Your task to perform on an android device: Go to Yahoo.com Image 0: 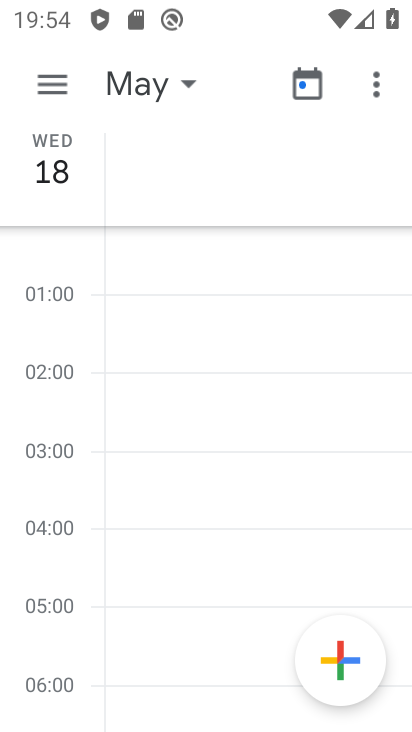
Step 0: press home button
Your task to perform on an android device: Go to Yahoo.com Image 1: 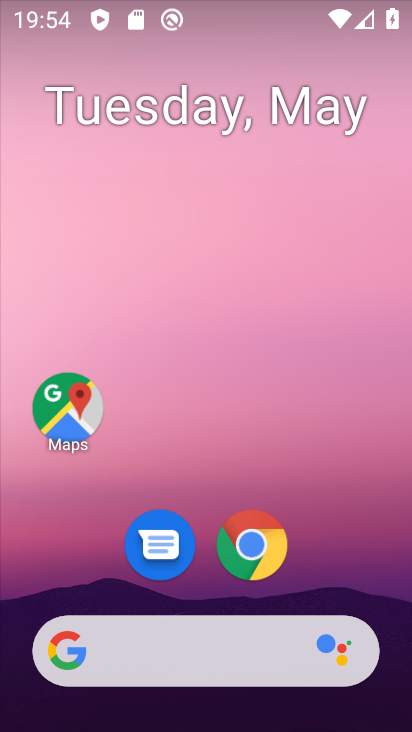
Step 1: click (277, 558)
Your task to perform on an android device: Go to Yahoo.com Image 2: 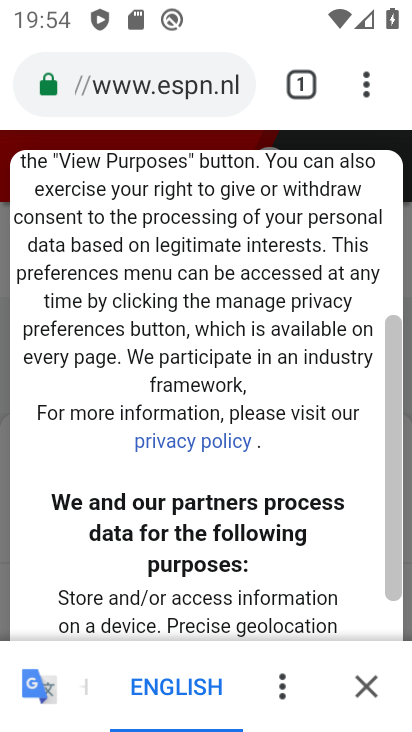
Step 2: click (294, 82)
Your task to perform on an android device: Go to Yahoo.com Image 3: 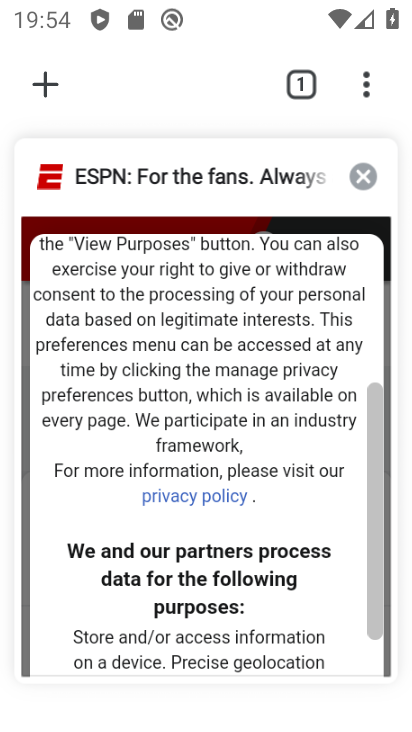
Step 3: click (371, 182)
Your task to perform on an android device: Go to Yahoo.com Image 4: 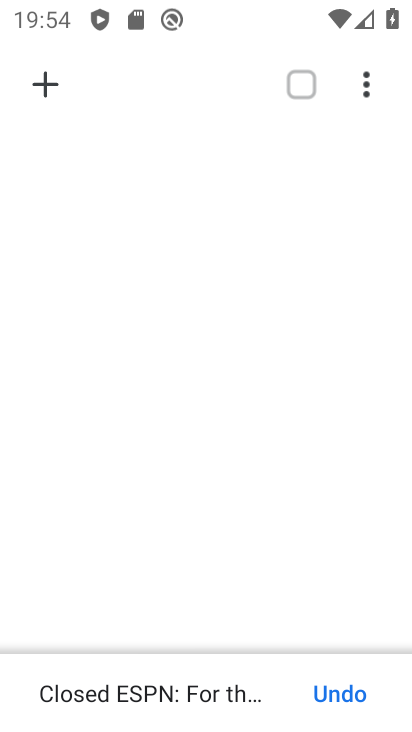
Step 4: click (37, 88)
Your task to perform on an android device: Go to Yahoo.com Image 5: 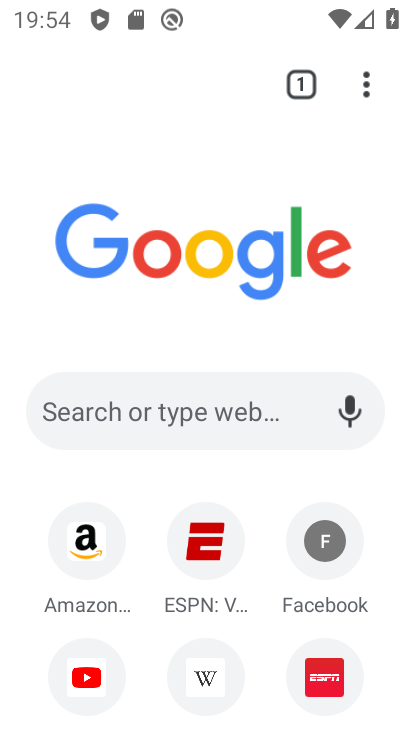
Step 5: click (185, 396)
Your task to perform on an android device: Go to Yahoo.com Image 6: 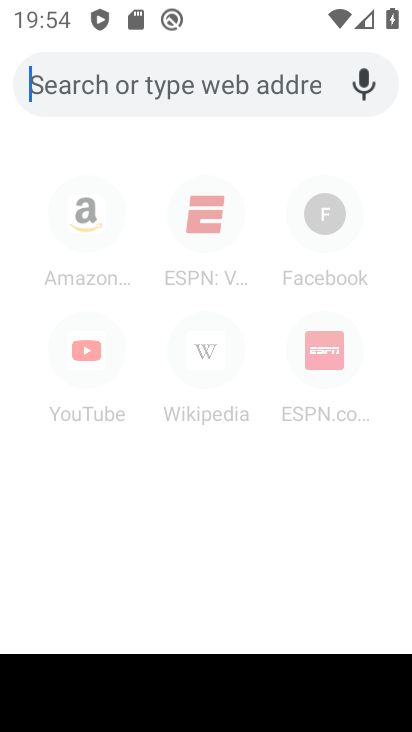
Step 6: type "yahoo.com"
Your task to perform on an android device: Go to Yahoo.com Image 7: 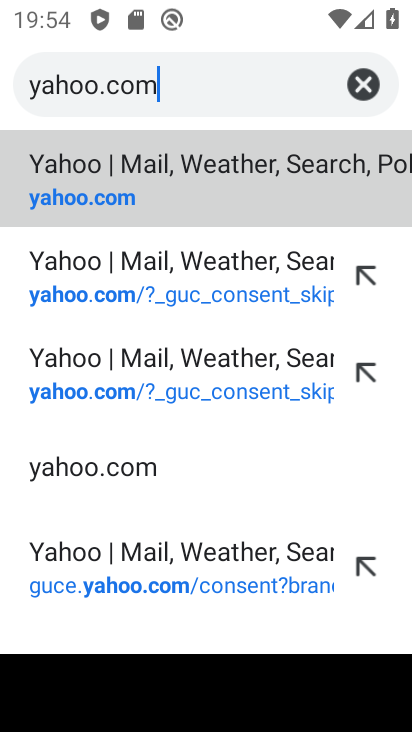
Step 7: click (167, 189)
Your task to perform on an android device: Go to Yahoo.com Image 8: 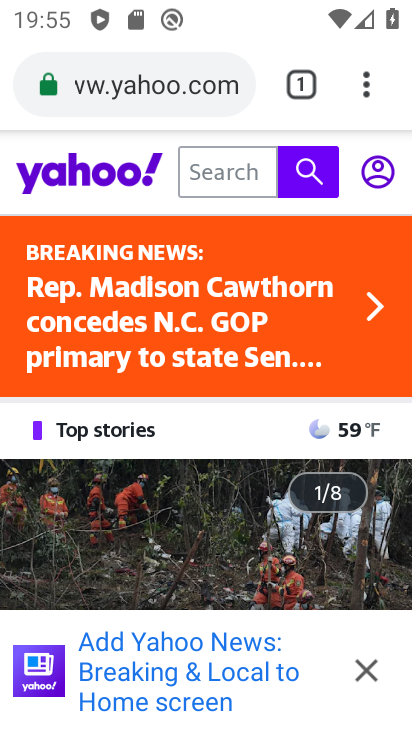
Step 8: task complete